Your task to perform on an android device: Open calendar and show me the second week of next month Image 0: 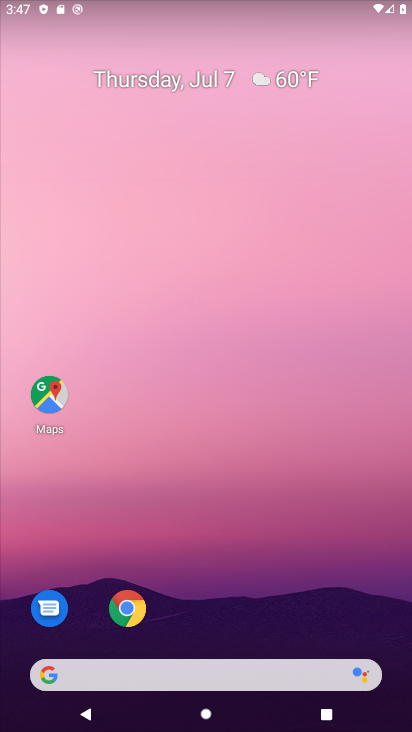
Step 0: drag from (287, 614) to (321, 254)
Your task to perform on an android device: Open calendar and show me the second week of next month Image 1: 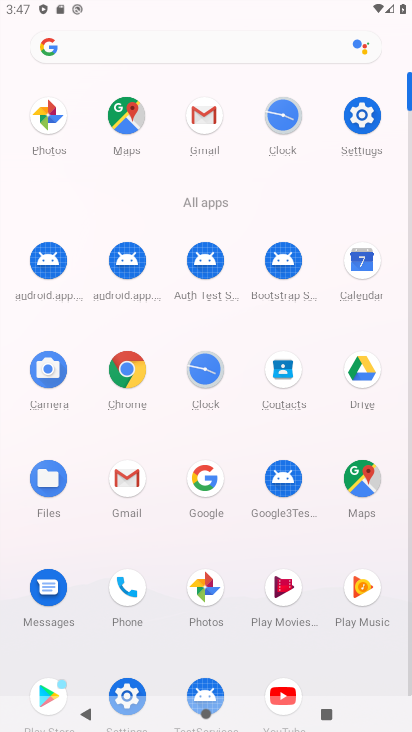
Step 1: click (355, 265)
Your task to perform on an android device: Open calendar and show me the second week of next month Image 2: 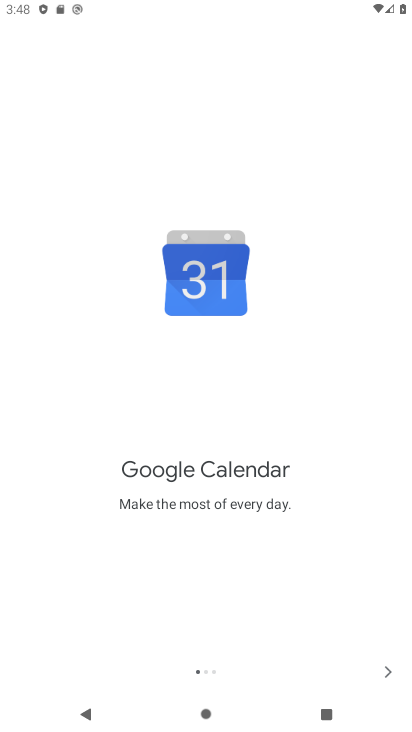
Step 2: click (388, 670)
Your task to perform on an android device: Open calendar and show me the second week of next month Image 3: 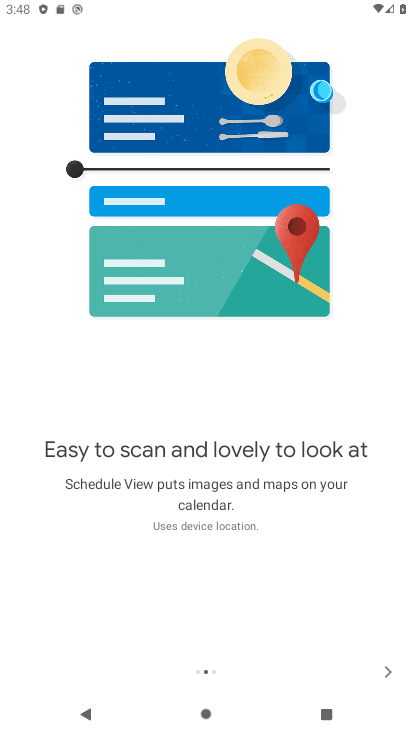
Step 3: click (388, 670)
Your task to perform on an android device: Open calendar and show me the second week of next month Image 4: 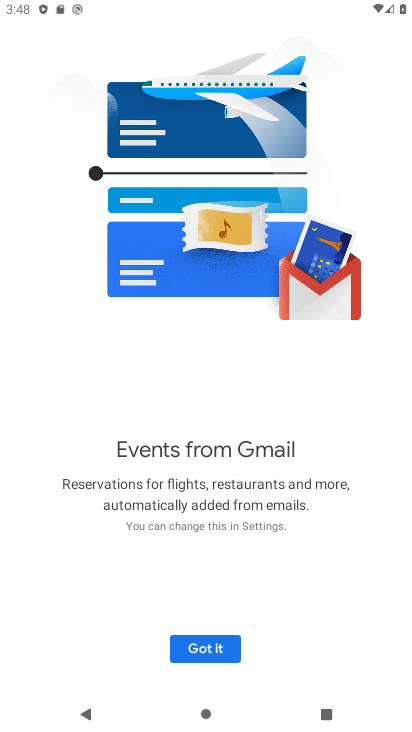
Step 4: click (219, 652)
Your task to perform on an android device: Open calendar and show me the second week of next month Image 5: 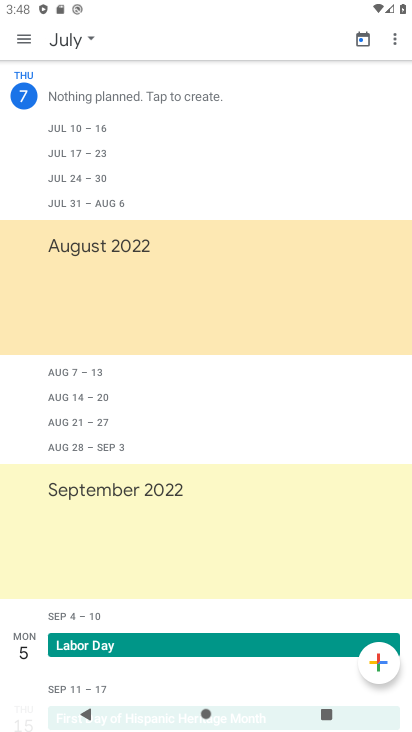
Step 5: click (19, 36)
Your task to perform on an android device: Open calendar and show me the second week of next month Image 6: 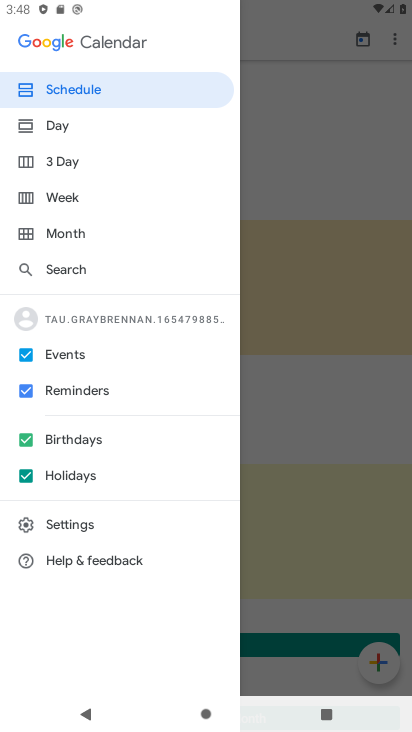
Step 6: click (62, 192)
Your task to perform on an android device: Open calendar and show me the second week of next month Image 7: 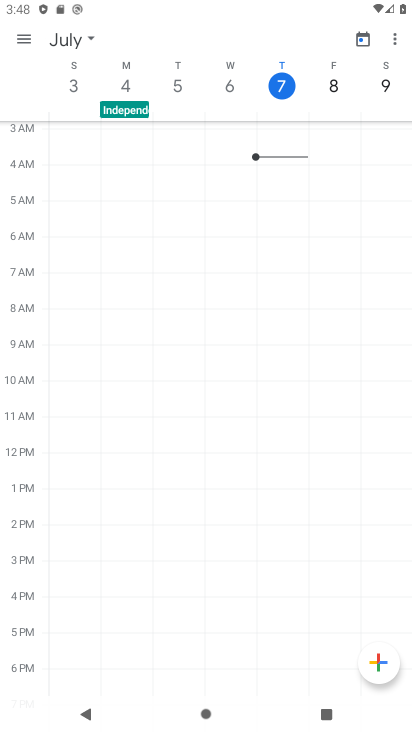
Step 7: click (85, 44)
Your task to perform on an android device: Open calendar and show me the second week of next month Image 8: 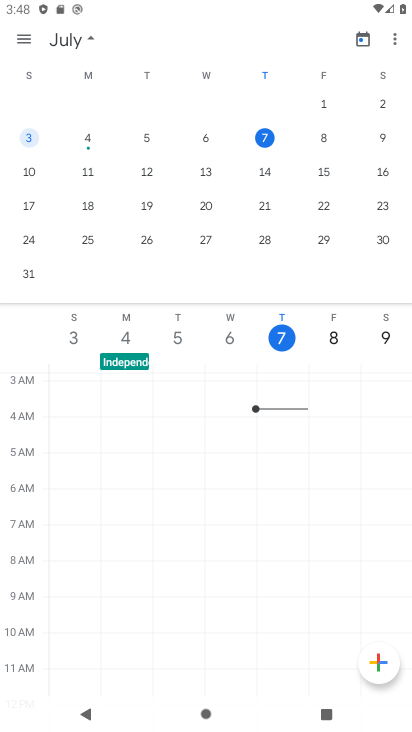
Step 8: drag from (299, 212) to (219, 209)
Your task to perform on an android device: Open calendar and show me the second week of next month Image 9: 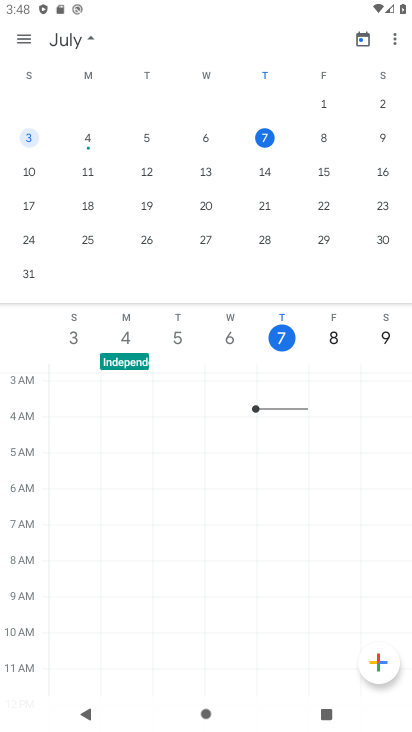
Step 9: click (92, 170)
Your task to perform on an android device: Open calendar and show me the second week of next month Image 10: 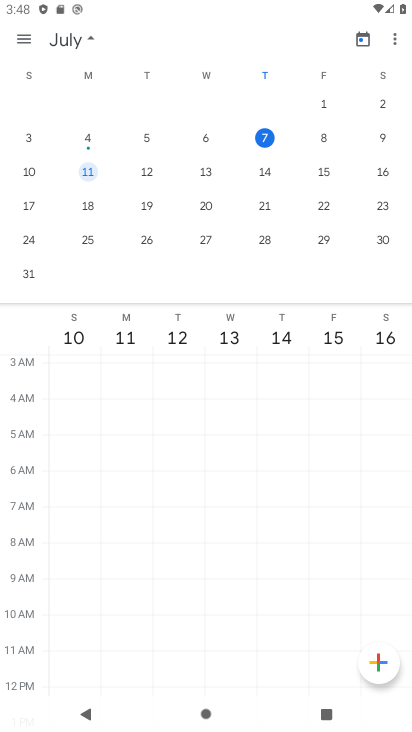
Step 10: drag from (277, 185) to (13, 150)
Your task to perform on an android device: Open calendar and show me the second week of next month Image 11: 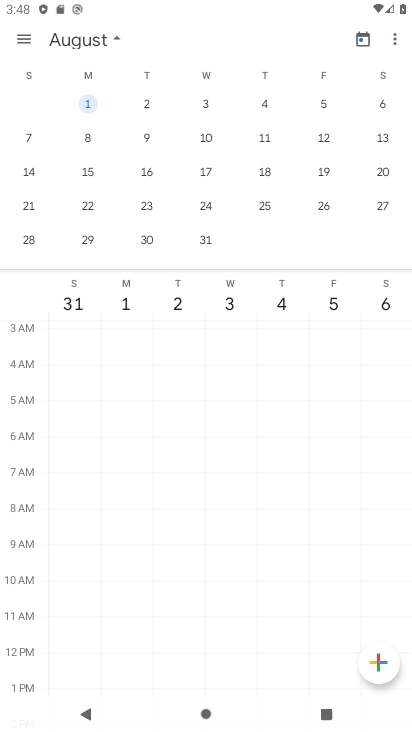
Step 11: click (85, 142)
Your task to perform on an android device: Open calendar and show me the second week of next month Image 12: 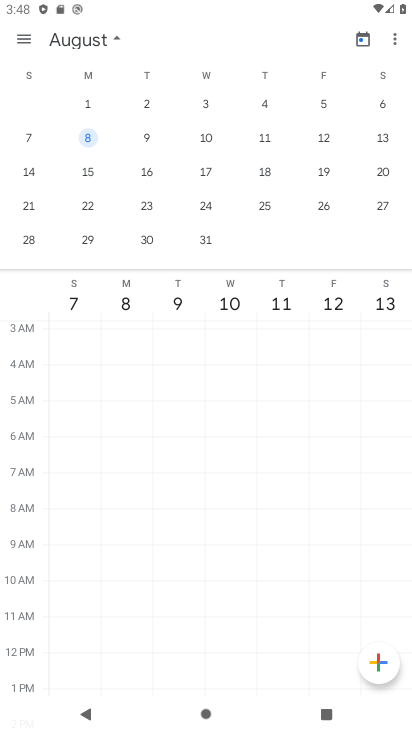
Step 12: task complete